Your task to perform on an android device: When is my next appointment? Image 0: 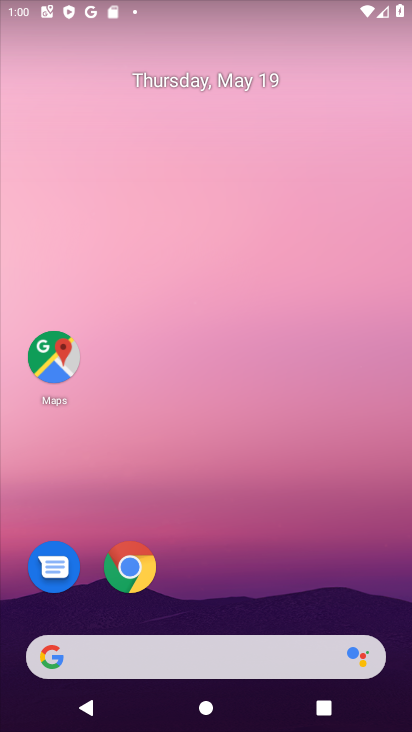
Step 0: drag from (352, 547) to (379, 79)
Your task to perform on an android device: When is my next appointment? Image 1: 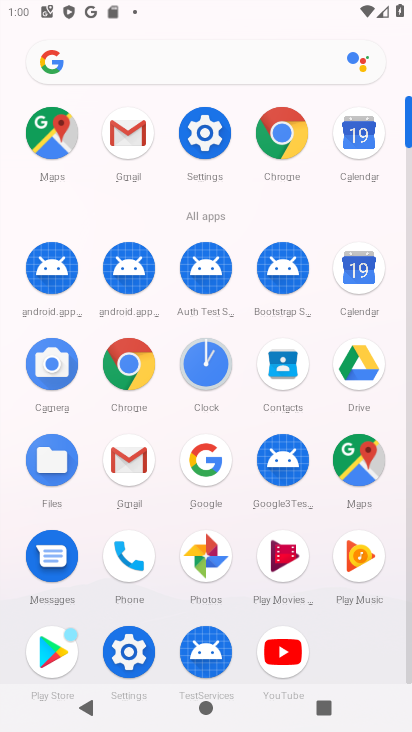
Step 1: click (368, 133)
Your task to perform on an android device: When is my next appointment? Image 2: 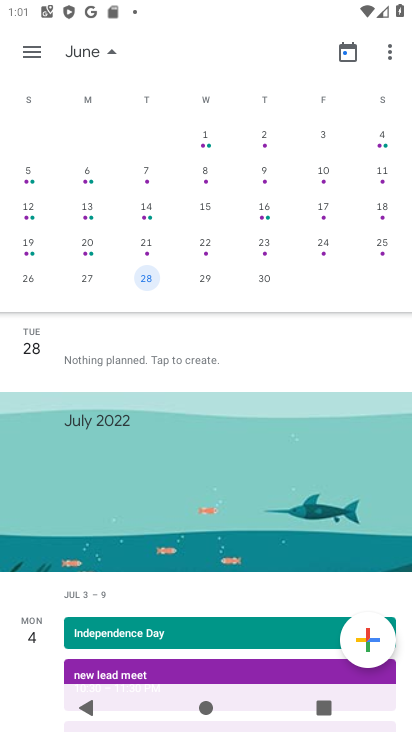
Step 2: task complete